Your task to perform on an android device: turn off smart reply in the gmail app Image 0: 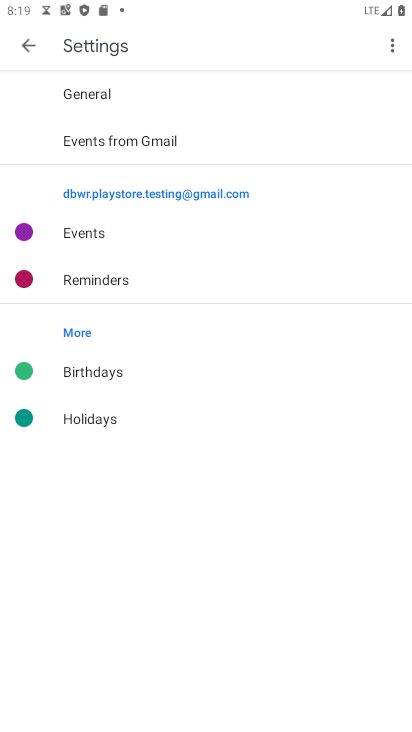
Step 0: press back button
Your task to perform on an android device: turn off smart reply in the gmail app Image 1: 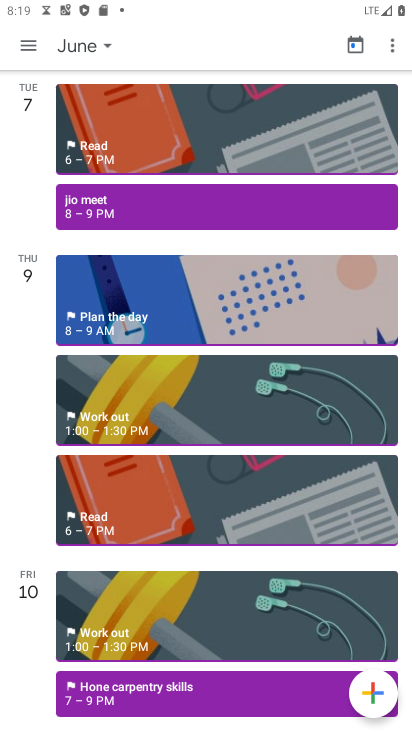
Step 1: press back button
Your task to perform on an android device: turn off smart reply in the gmail app Image 2: 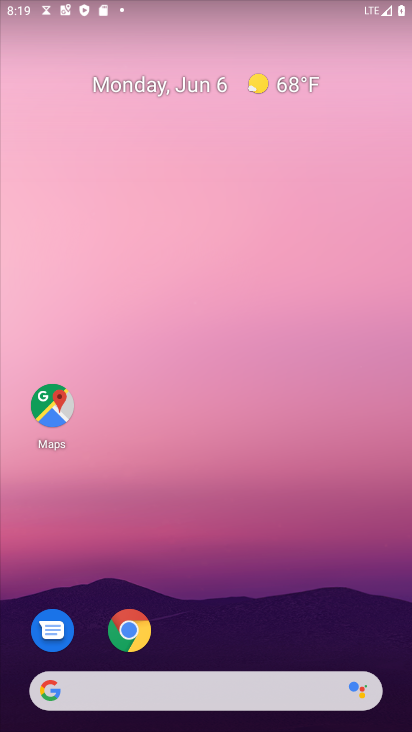
Step 2: drag from (243, 615) to (186, 100)
Your task to perform on an android device: turn off smart reply in the gmail app Image 3: 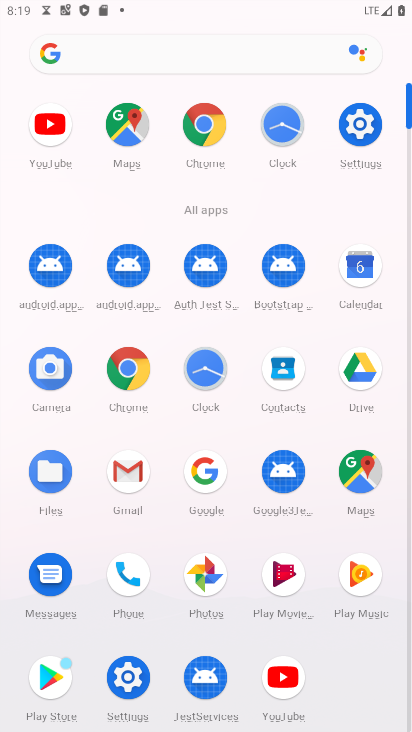
Step 3: click (125, 471)
Your task to perform on an android device: turn off smart reply in the gmail app Image 4: 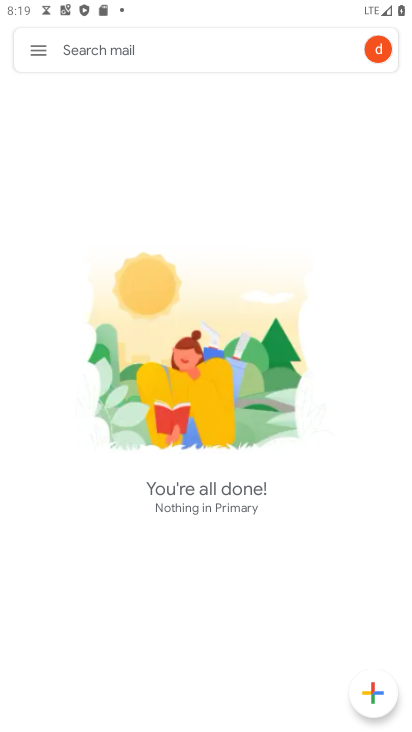
Step 4: click (39, 51)
Your task to perform on an android device: turn off smart reply in the gmail app Image 5: 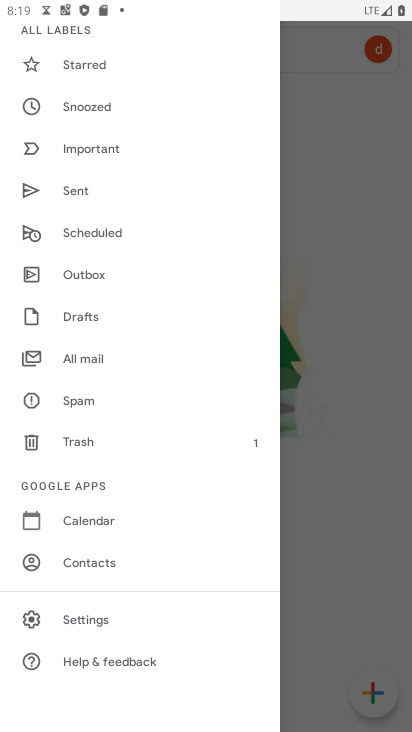
Step 5: click (88, 622)
Your task to perform on an android device: turn off smart reply in the gmail app Image 6: 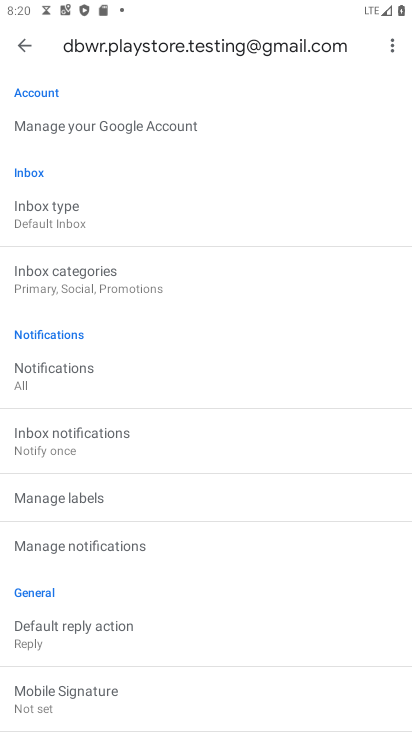
Step 6: drag from (79, 580) to (112, 449)
Your task to perform on an android device: turn off smart reply in the gmail app Image 7: 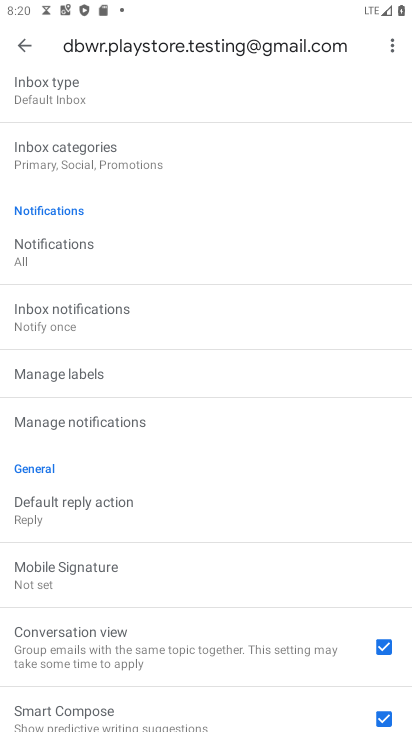
Step 7: drag from (83, 475) to (110, 345)
Your task to perform on an android device: turn off smart reply in the gmail app Image 8: 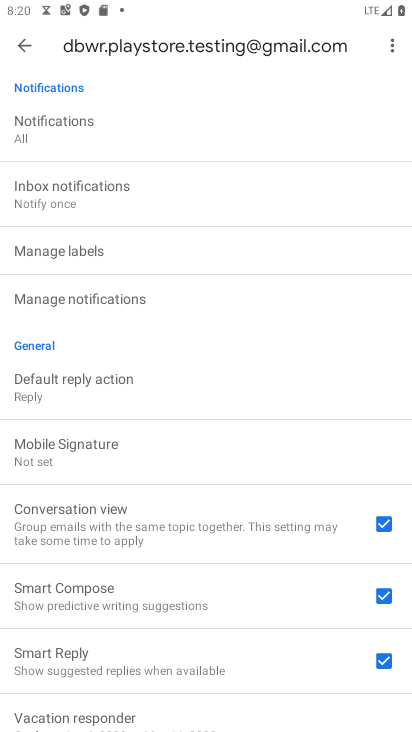
Step 8: click (384, 659)
Your task to perform on an android device: turn off smart reply in the gmail app Image 9: 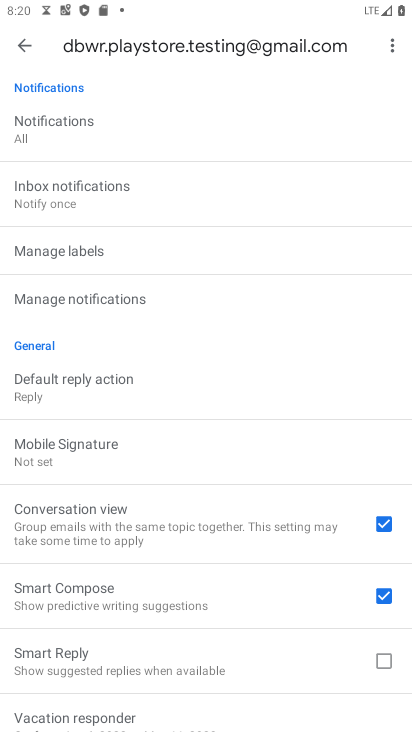
Step 9: task complete